Your task to perform on an android device: Search for pizza restaurants on Maps Image 0: 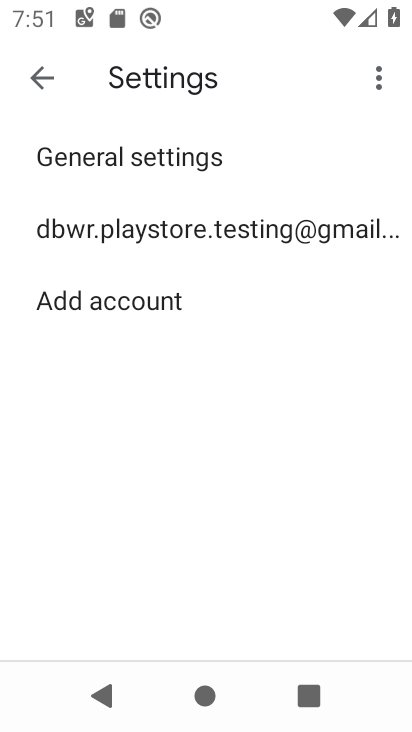
Step 0: press back button
Your task to perform on an android device: Search for pizza restaurants on Maps Image 1: 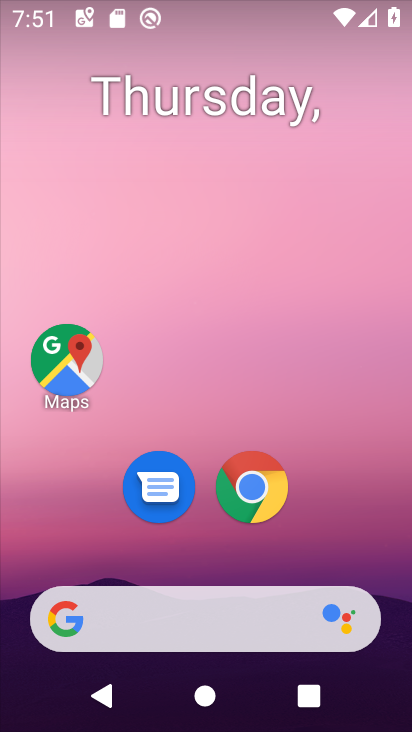
Step 1: click (68, 358)
Your task to perform on an android device: Search for pizza restaurants on Maps Image 2: 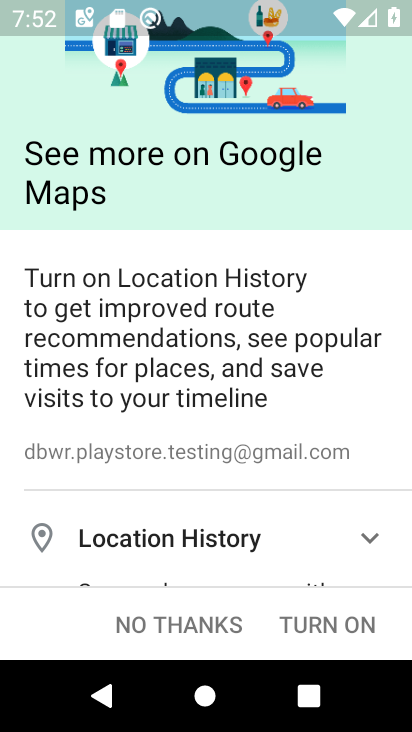
Step 2: click (208, 631)
Your task to perform on an android device: Search for pizza restaurants on Maps Image 3: 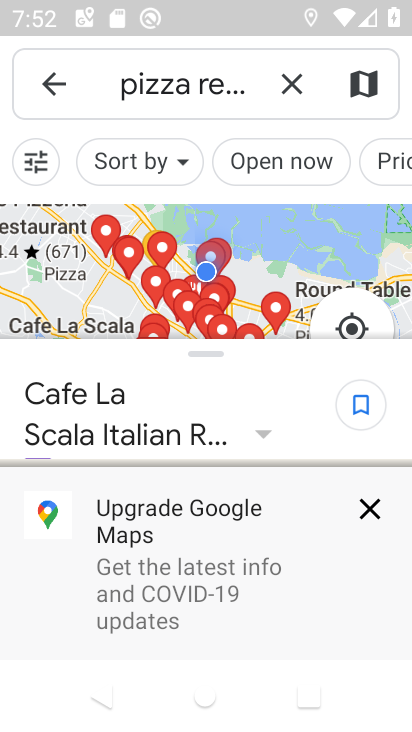
Step 3: task complete